Your task to perform on an android device: move an email to a new category in the gmail app Image 0: 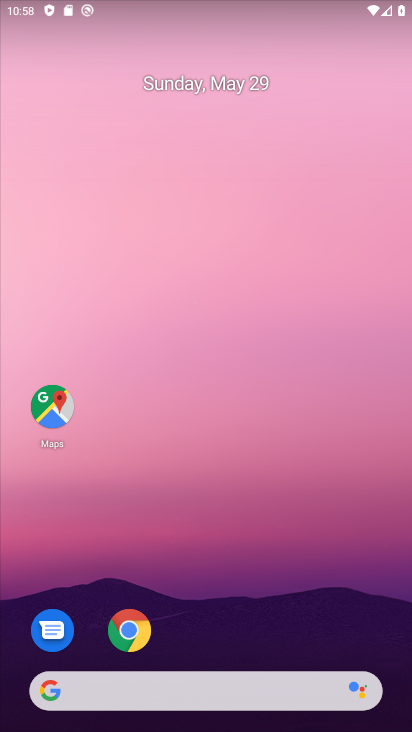
Step 0: drag from (380, 719) to (148, 115)
Your task to perform on an android device: move an email to a new category in the gmail app Image 1: 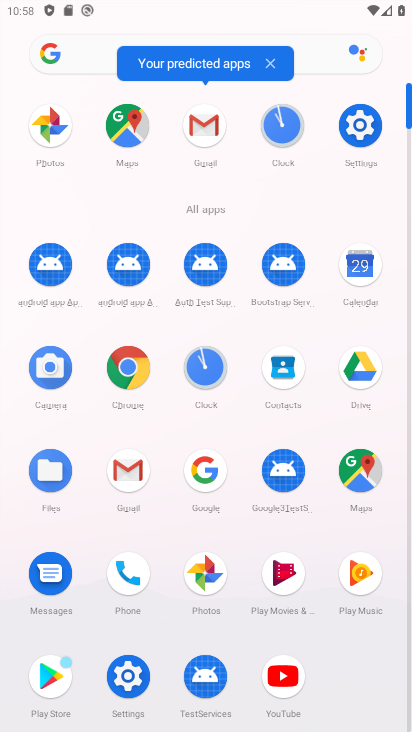
Step 1: click (137, 472)
Your task to perform on an android device: move an email to a new category in the gmail app Image 2: 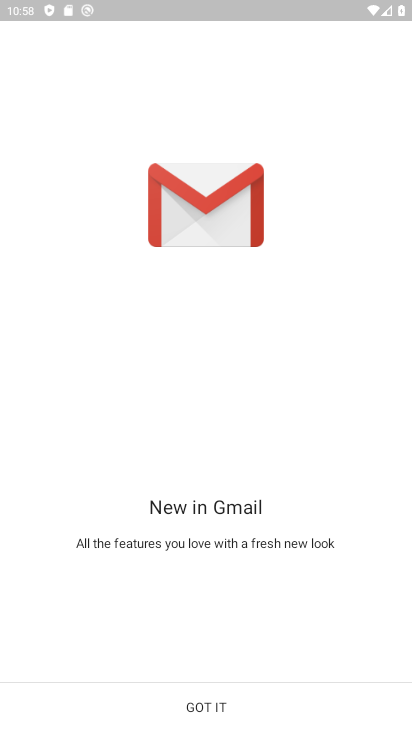
Step 2: click (240, 710)
Your task to perform on an android device: move an email to a new category in the gmail app Image 3: 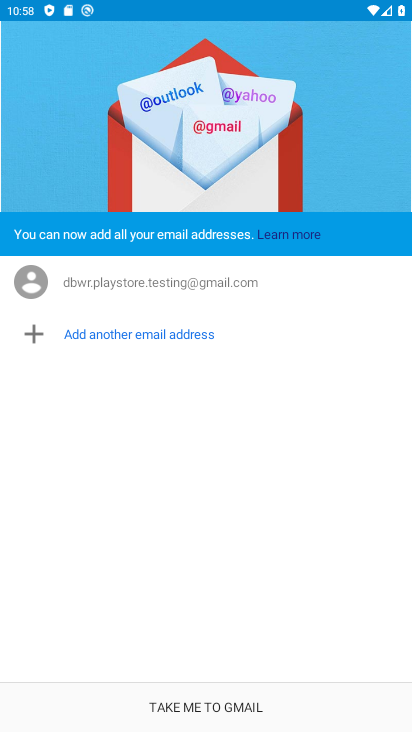
Step 3: click (102, 284)
Your task to perform on an android device: move an email to a new category in the gmail app Image 4: 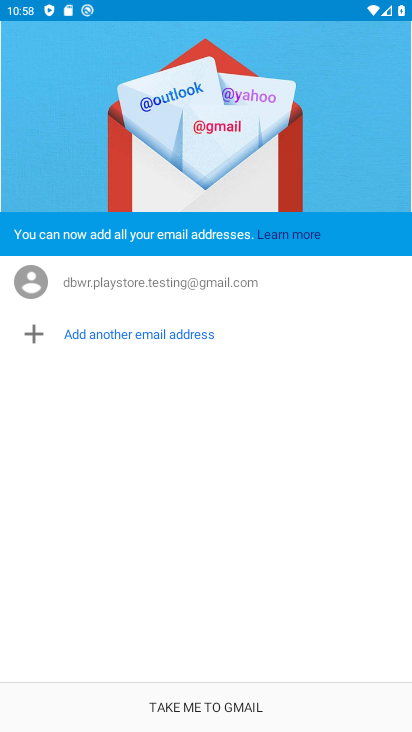
Step 4: click (219, 698)
Your task to perform on an android device: move an email to a new category in the gmail app Image 5: 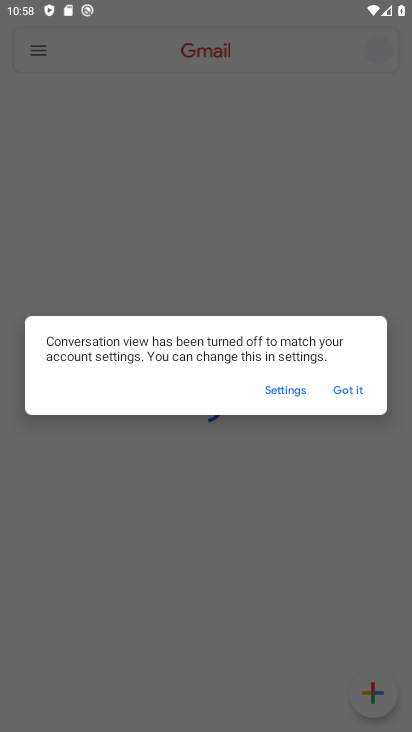
Step 5: click (360, 382)
Your task to perform on an android device: move an email to a new category in the gmail app Image 6: 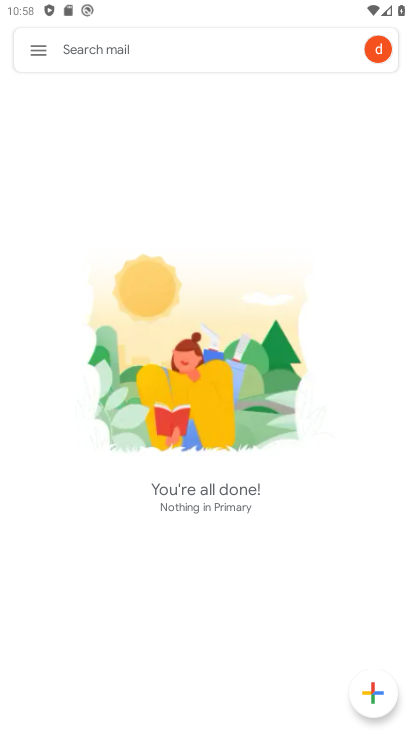
Step 6: click (31, 51)
Your task to perform on an android device: move an email to a new category in the gmail app Image 7: 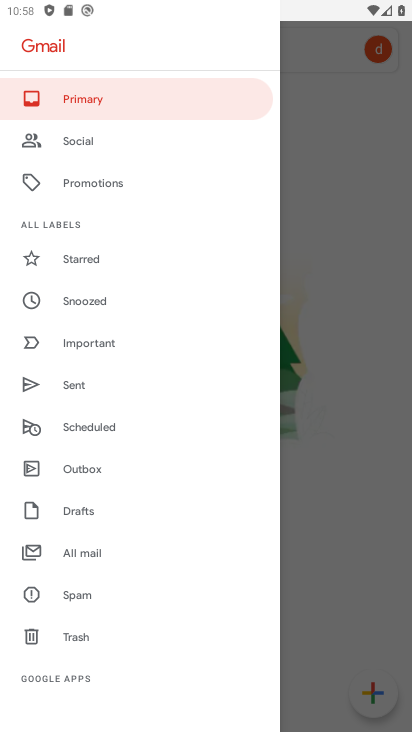
Step 7: click (73, 550)
Your task to perform on an android device: move an email to a new category in the gmail app Image 8: 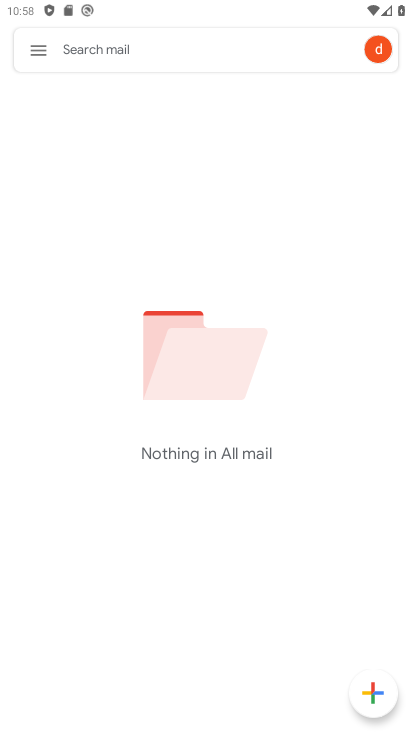
Step 8: click (31, 44)
Your task to perform on an android device: move an email to a new category in the gmail app Image 9: 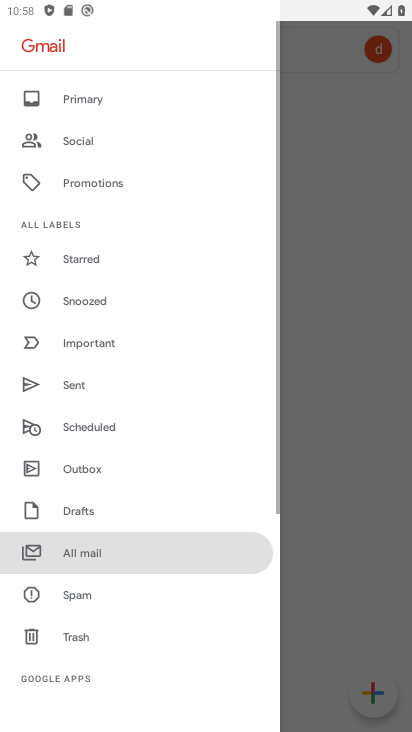
Step 9: click (81, 102)
Your task to perform on an android device: move an email to a new category in the gmail app Image 10: 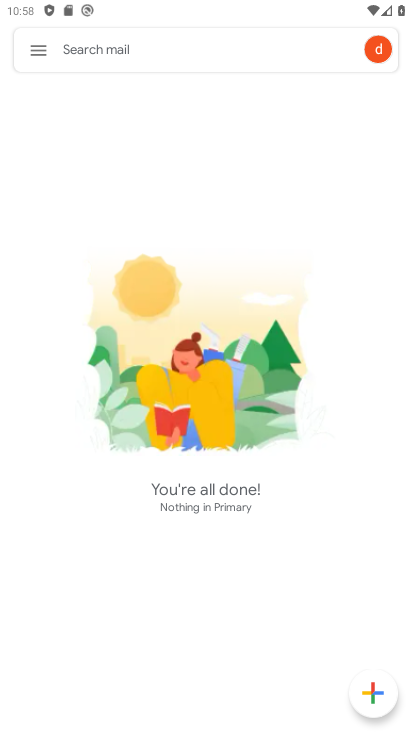
Step 10: task complete